Your task to perform on an android device: open a bookmark in the chrome app Image 0: 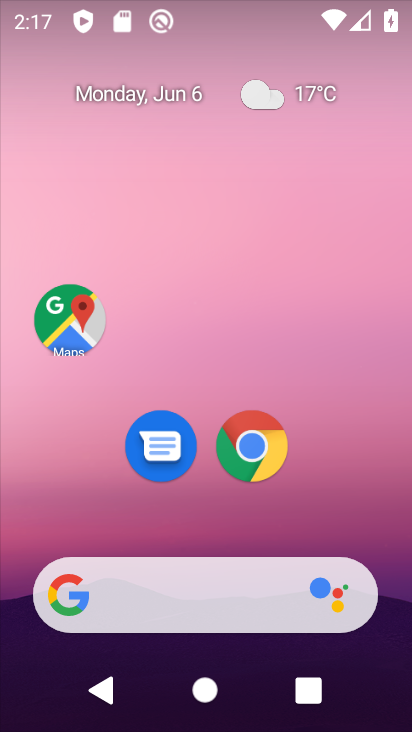
Step 0: click (253, 438)
Your task to perform on an android device: open a bookmark in the chrome app Image 1: 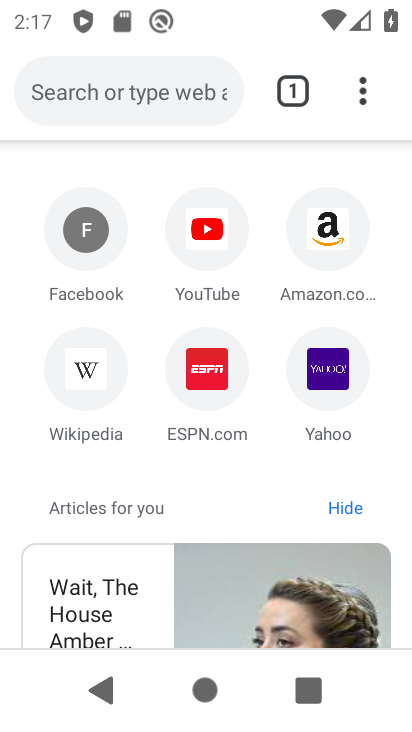
Step 1: drag from (364, 86) to (116, 349)
Your task to perform on an android device: open a bookmark in the chrome app Image 2: 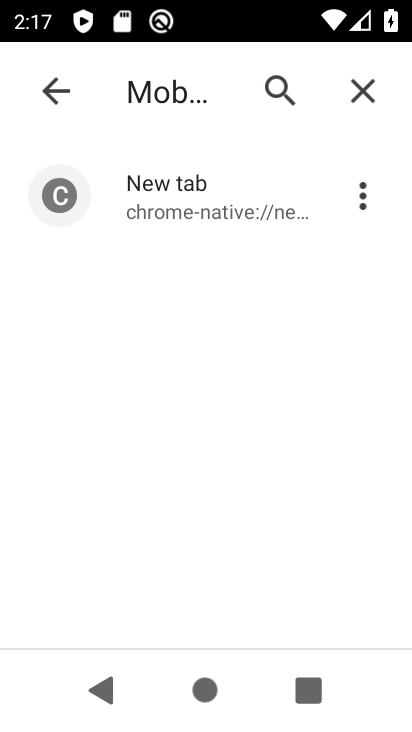
Step 2: click (161, 187)
Your task to perform on an android device: open a bookmark in the chrome app Image 3: 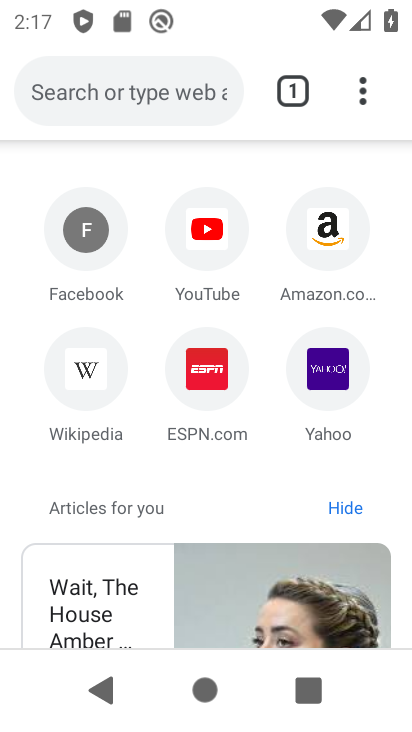
Step 3: task complete